Your task to perform on an android device: Turn on the flashlight Image 0: 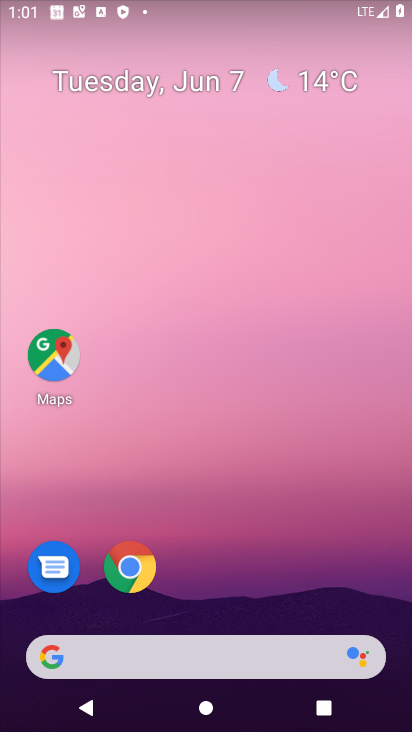
Step 0: drag from (245, 75) to (318, 725)
Your task to perform on an android device: Turn on the flashlight Image 1: 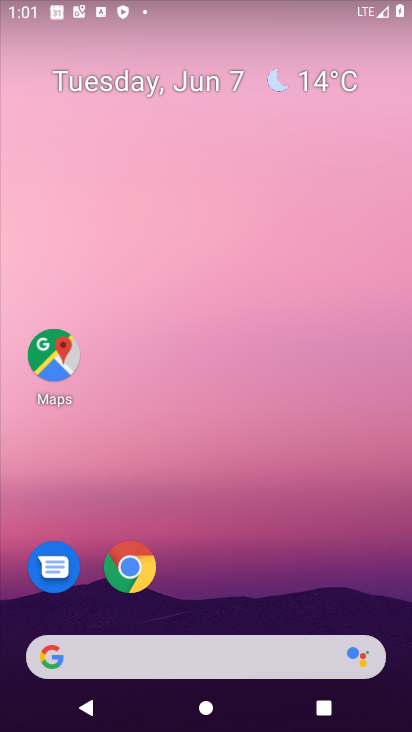
Step 1: task complete